Your task to perform on an android device: Go to Google Image 0: 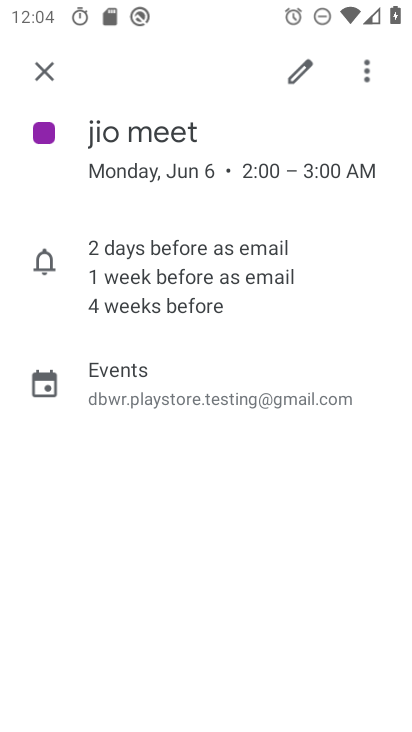
Step 0: press home button
Your task to perform on an android device: Go to Google Image 1: 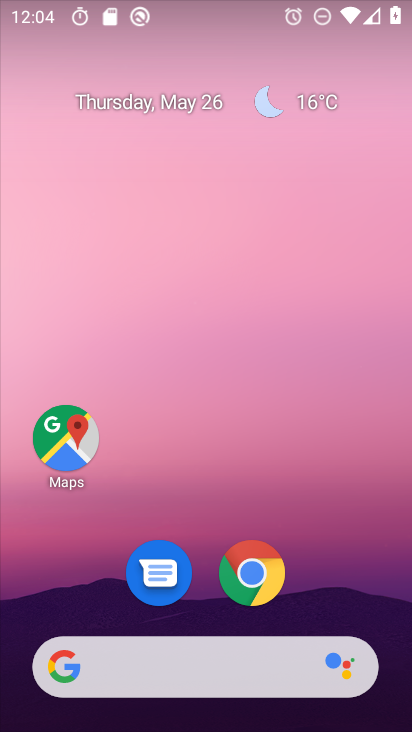
Step 1: drag from (352, 613) to (279, 31)
Your task to perform on an android device: Go to Google Image 2: 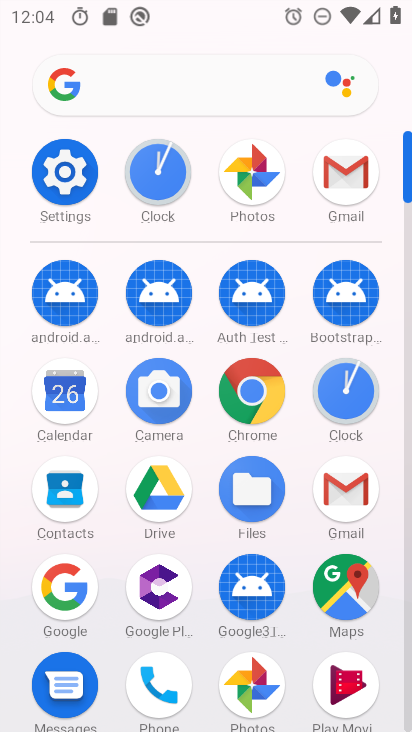
Step 2: click (64, 590)
Your task to perform on an android device: Go to Google Image 3: 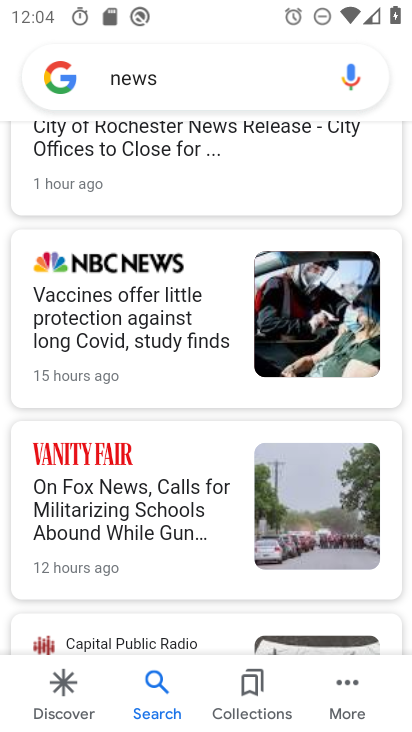
Step 3: task complete